Your task to perform on an android device: Go to eBay Image 0: 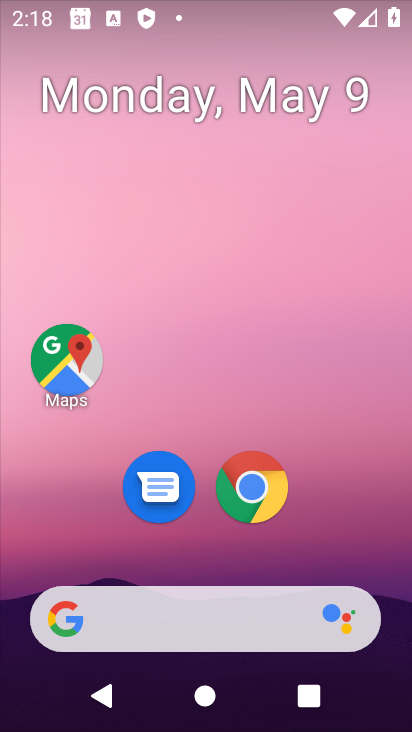
Step 0: click (203, 619)
Your task to perform on an android device: Go to eBay Image 1: 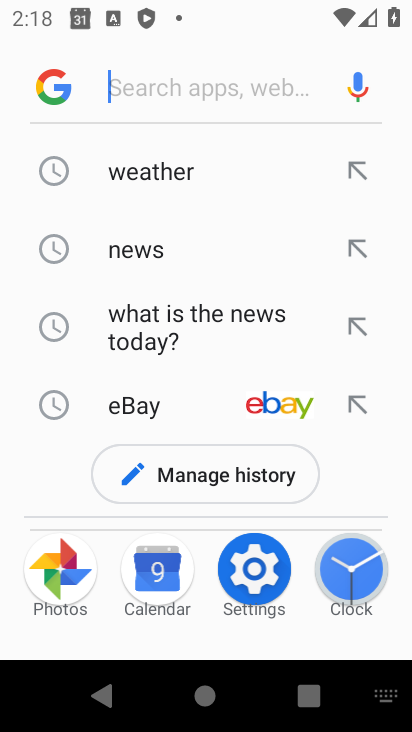
Step 1: click (277, 397)
Your task to perform on an android device: Go to eBay Image 2: 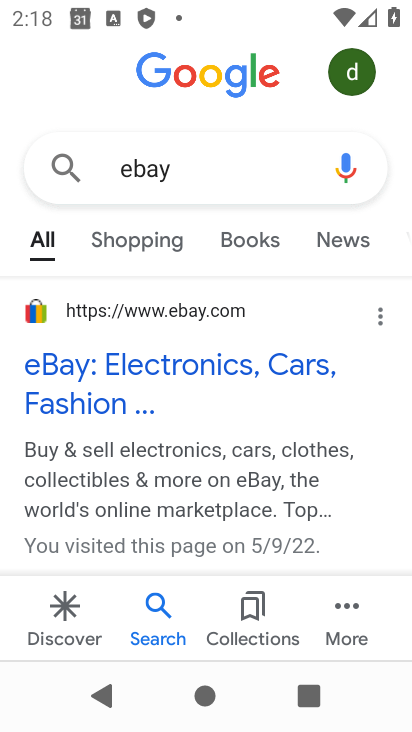
Step 2: click (149, 362)
Your task to perform on an android device: Go to eBay Image 3: 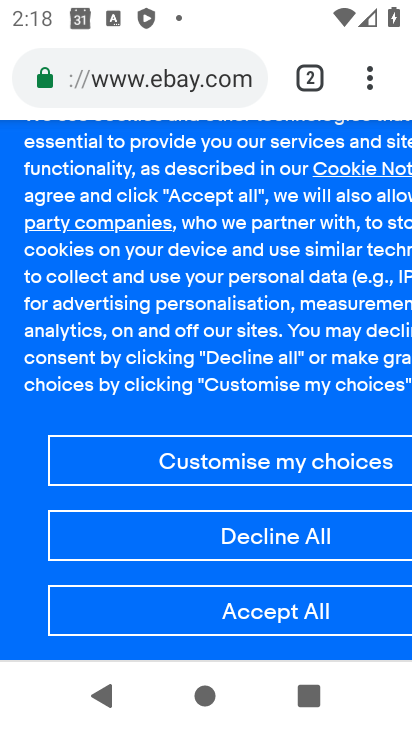
Step 3: task complete